Your task to perform on an android device: Search for seafood restaurants on Google Maps Image 0: 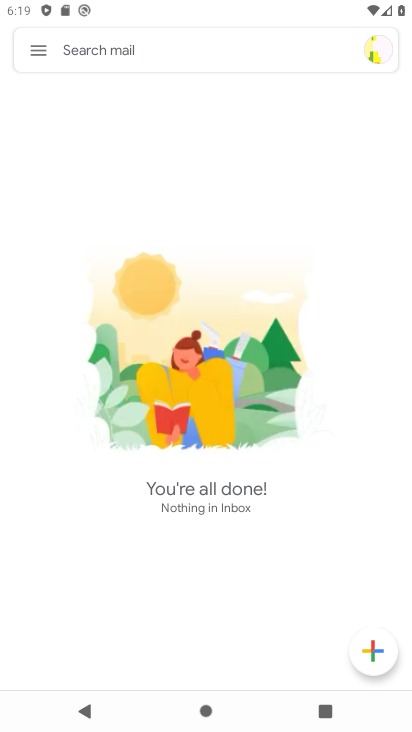
Step 0: press home button
Your task to perform on an android device: Search for seafood restaurants on Google Maps Image 1: 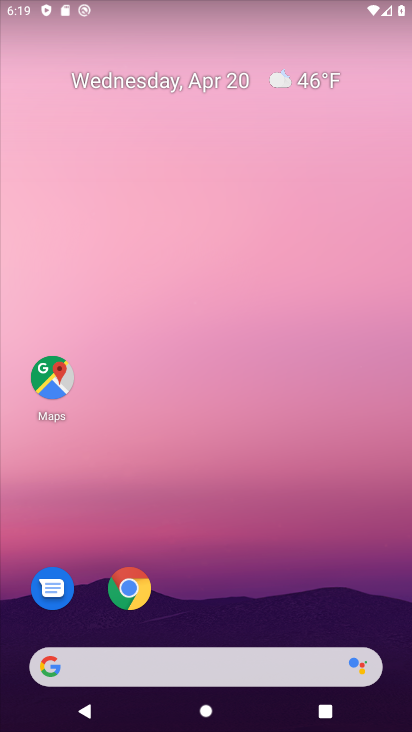
Step 1: click (268, 710)
Your task to perform on an android device: Search for seafood restaurants on Google Maps Image 2: 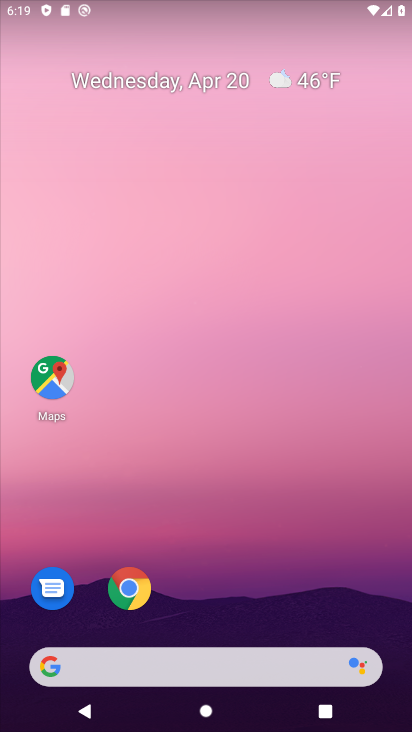
Step 2: click (35, 379)
Your task to perform on an android device: Search for seafood restaurants on Google Maps Image 3: 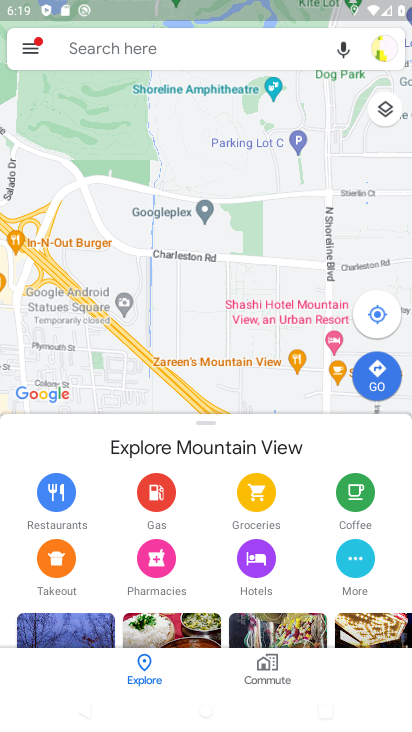
Step 3: click (161, 42)
Your task to perform on an android device: Search for seafood restaurants on Google Maps Image 4: 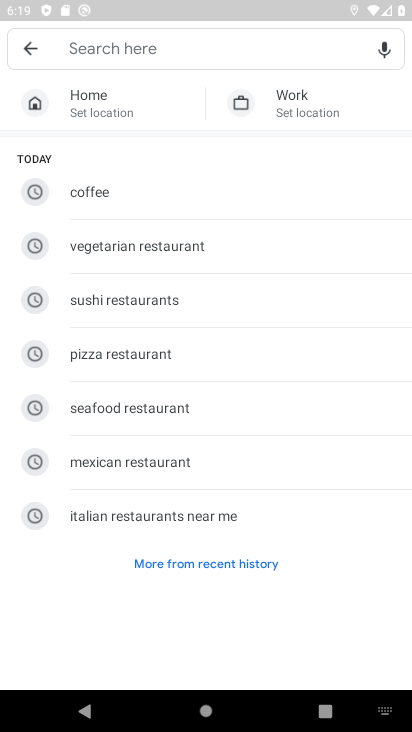
Step 4: type "seafood restaurants "
Your task to perform on an android device: Search for seafood restaurants on Google Maps Image 5: 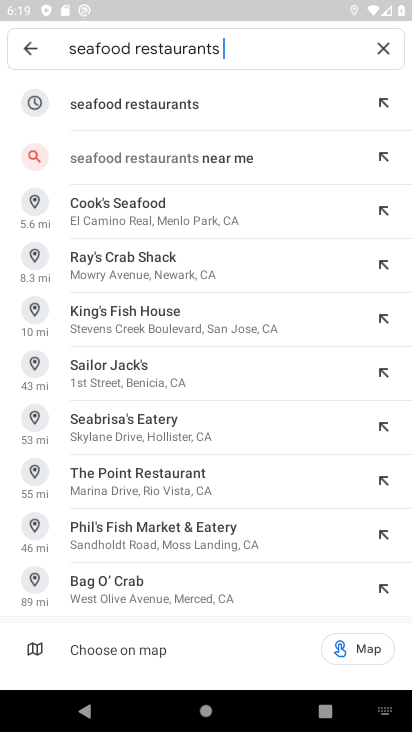
Step 5: click (208, 102)
Your task to perform on an android device: Search for seafood restaurants on Google Maps Image 6: 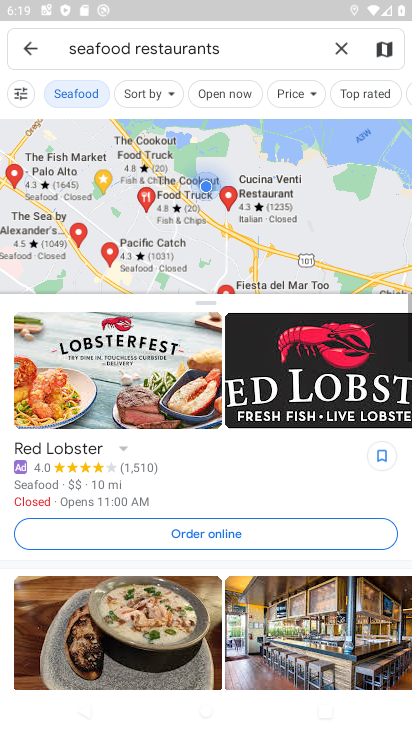
Step 6: task complete